Your task to perform on an android device: turn off wifi Image 0: 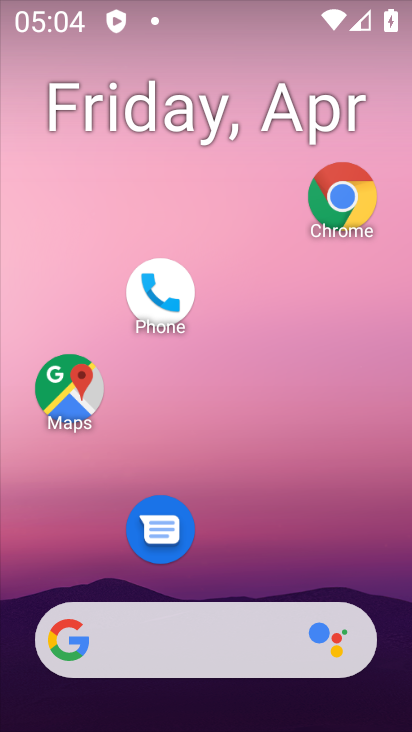
Step 0: drag from (238, 546) to (240, 1)
Your task to perform on an android device: turn off wifi Image 1: 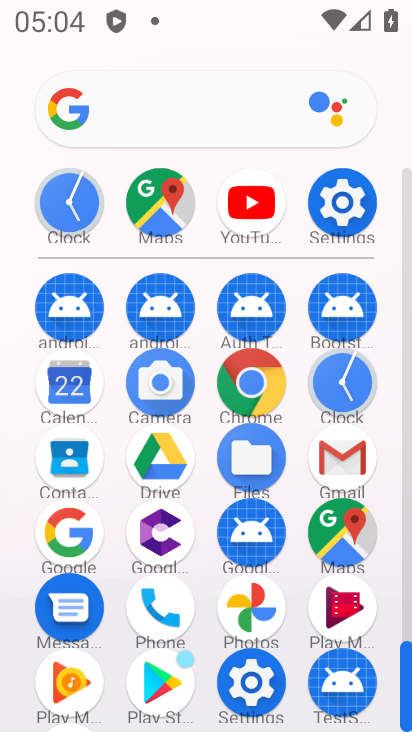
Step 1: click (343, 449)
Your task to perform on an android device: turn off wifi Image 2: 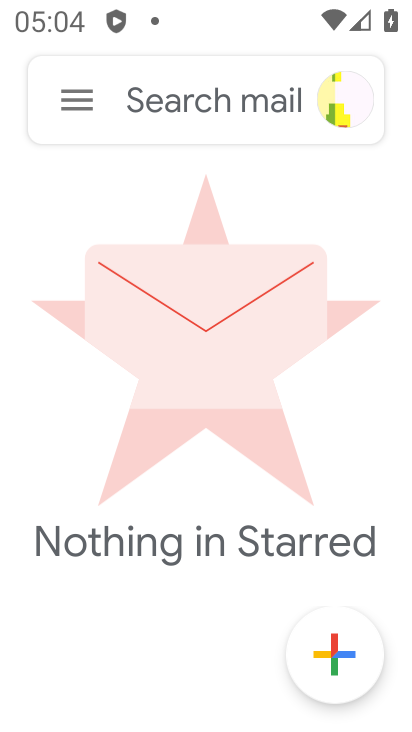
Step 2: press home button
Your task to perform on an android device: turn off wifi Image 3: 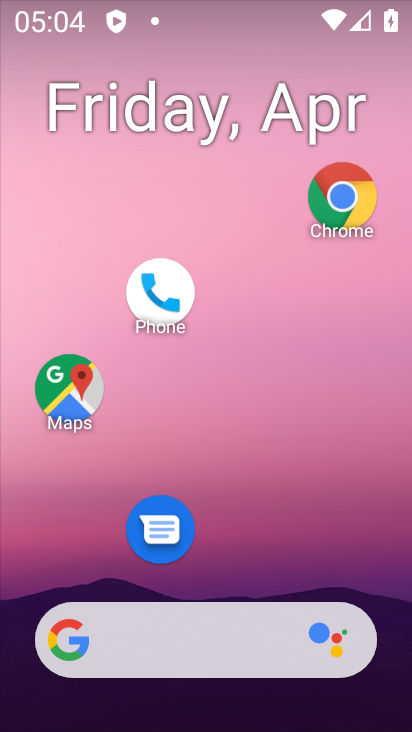
Step 3: drag from (181, 17) to (173, 604)
Your task to perform on an android device: turn off wifi Image 4: 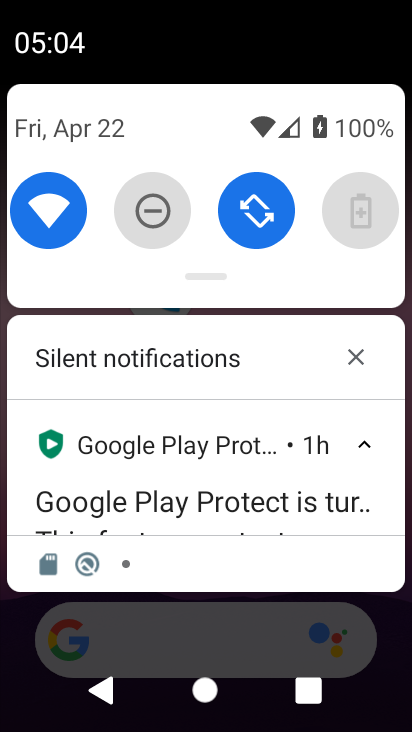
Step 4: click (48, 207)
Your task to perform on an android device: turn off wifi Image 5: 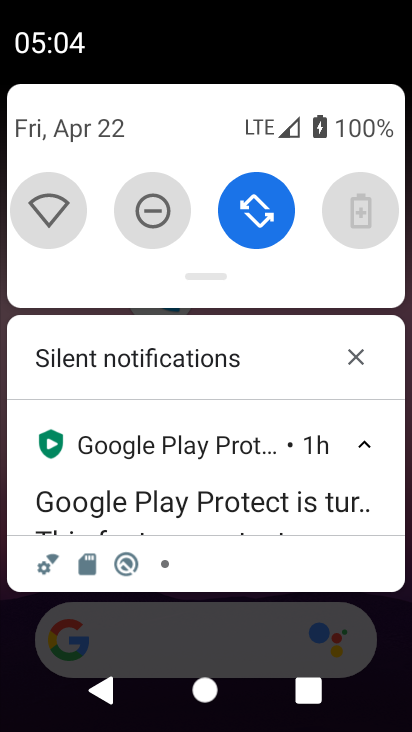
Step 5: task complete